Your task to perform on an android device: Search for sushi restaurants on Maps Image 0: 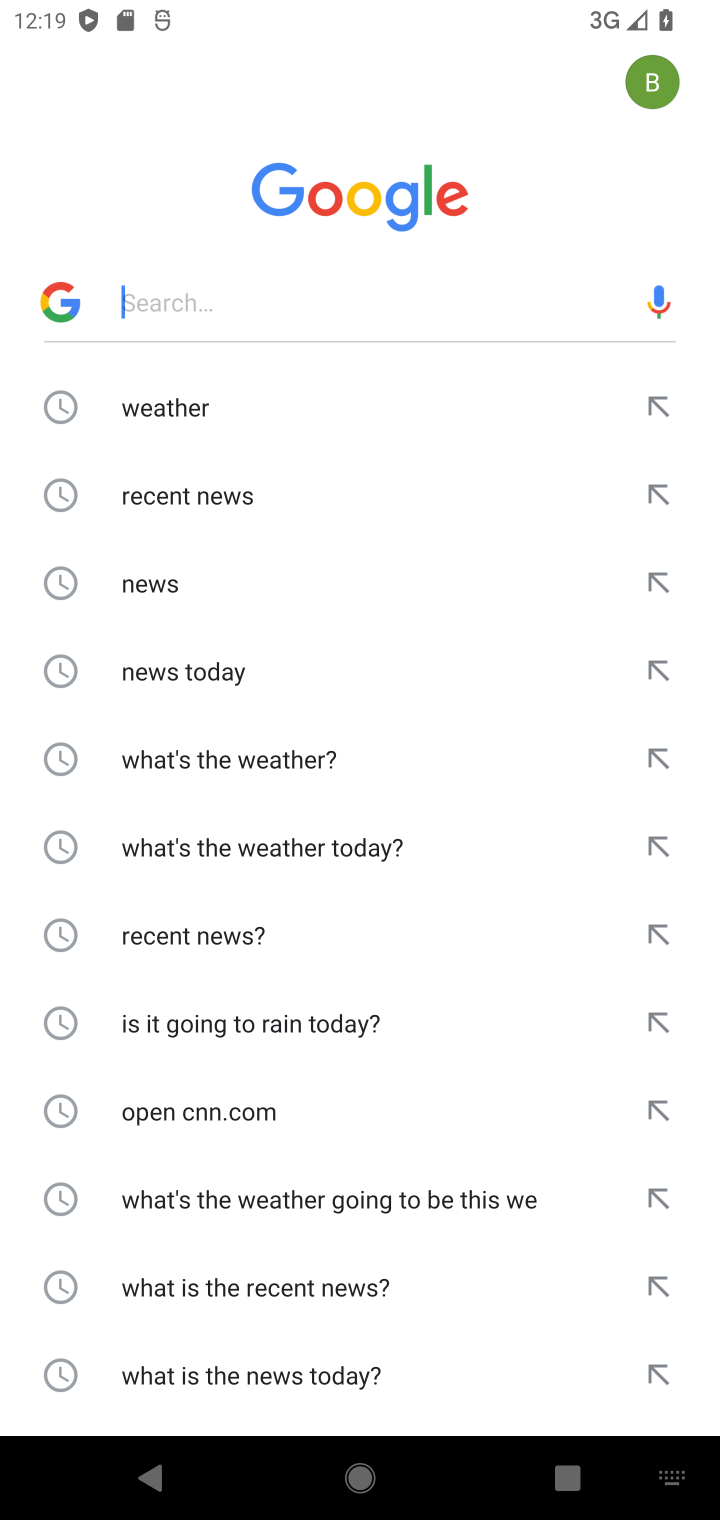
Step 0: press home button
Your task to perform on an android device: Search for sushi restaurants on Maps Image 1: 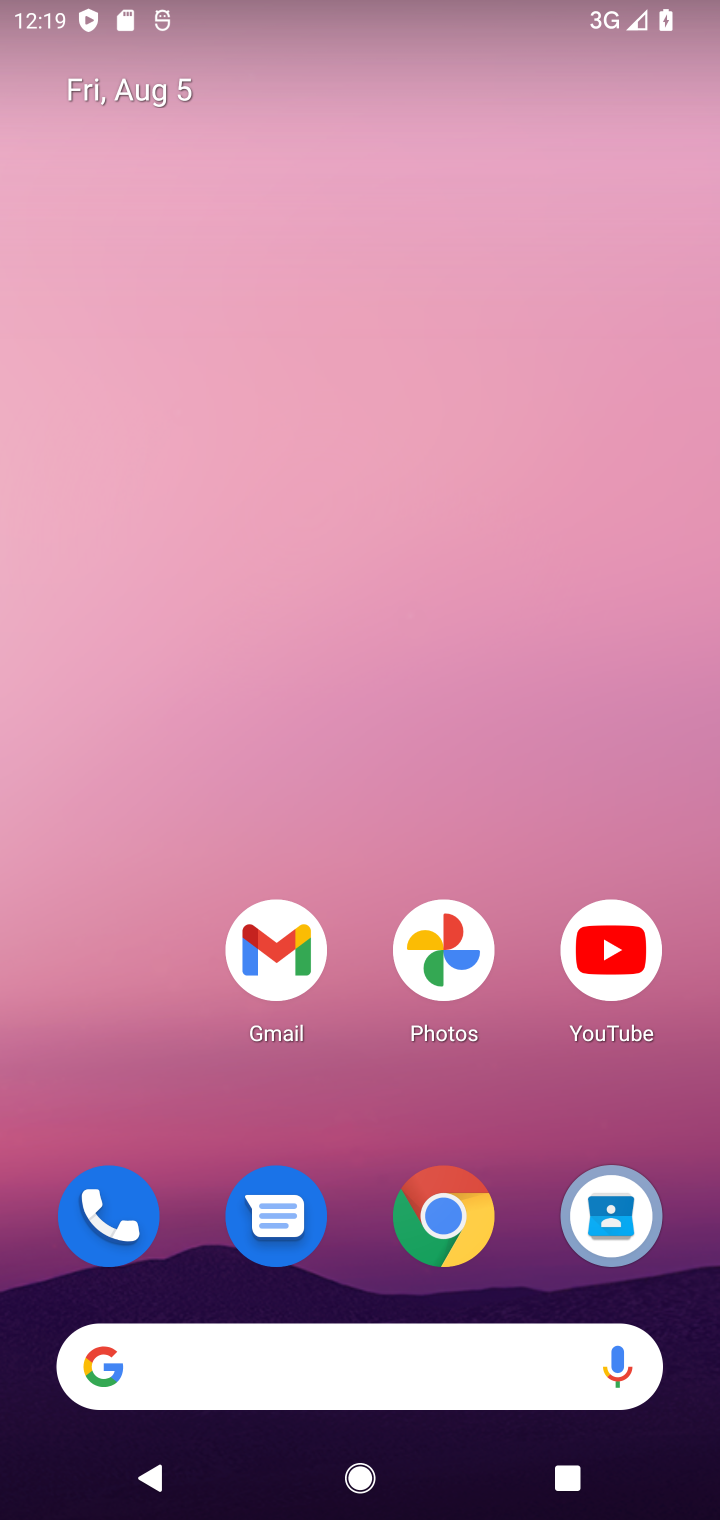
Step 1: drag from (423, 1363) to (534, 48)
Your task to perform on an android device: Search for sushi restaurants on Maps Image 2: 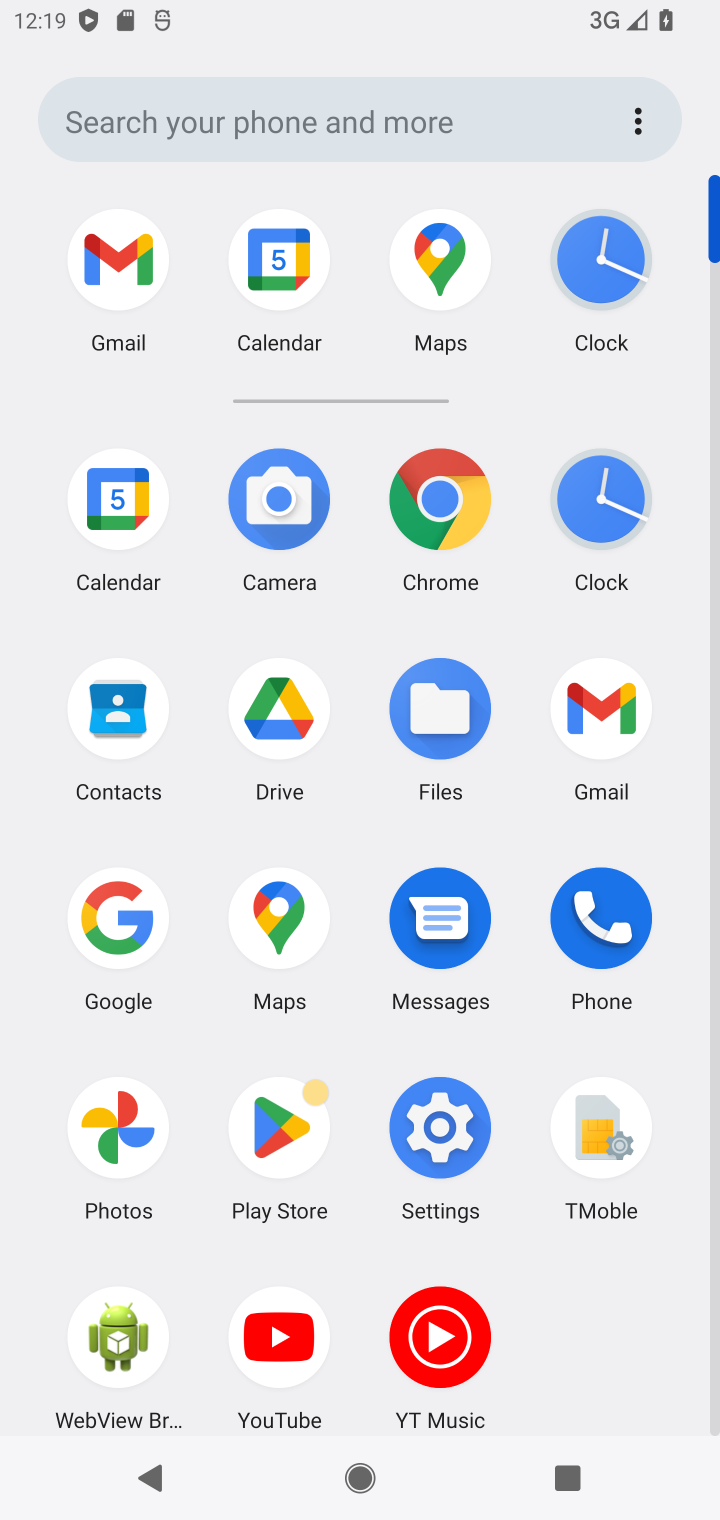
Step 2: click (295, 894)
Your task to perform on an android device: Search for sushi restaurants on Maps Image 3: 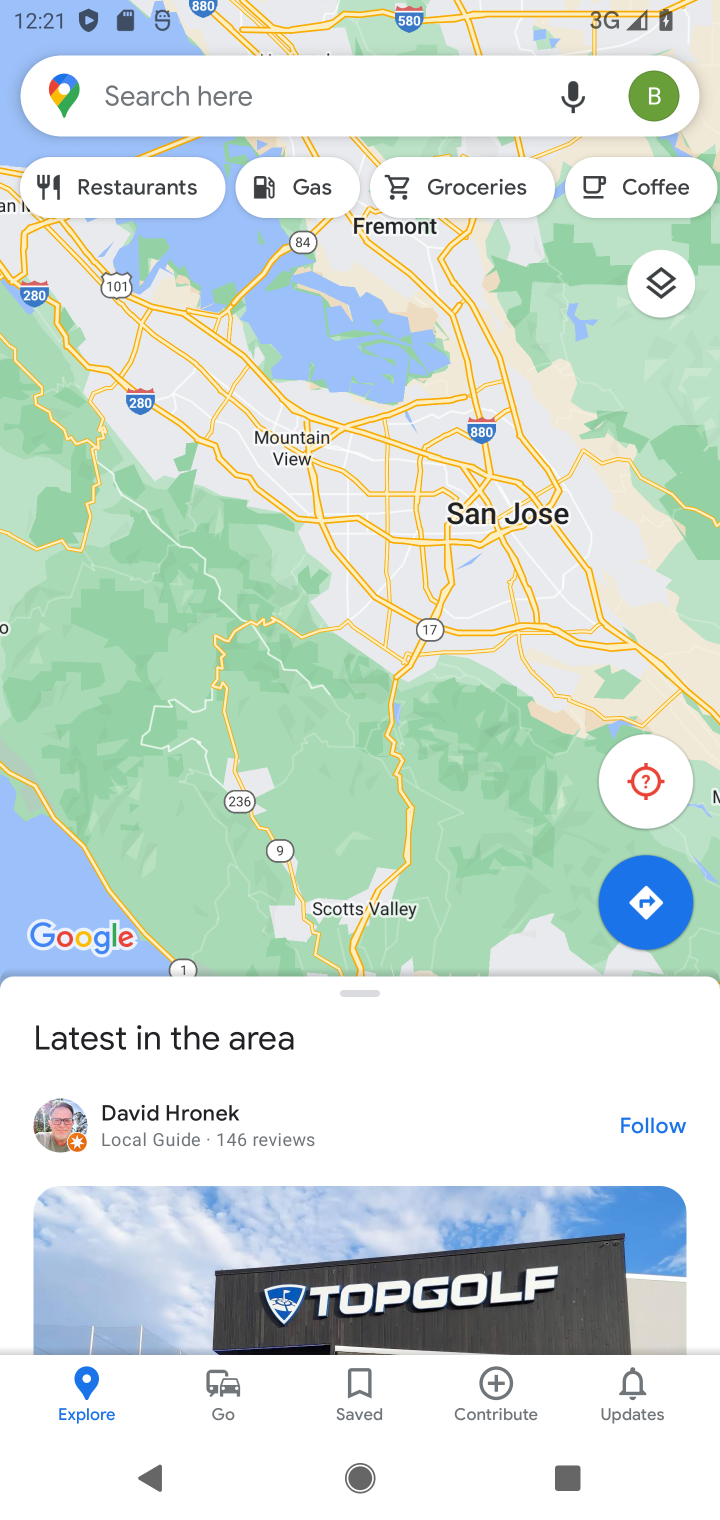
Step 3: click (280, 111)
Your task to perform on an android device: Search for sushi restaurants on Maps Image 4: 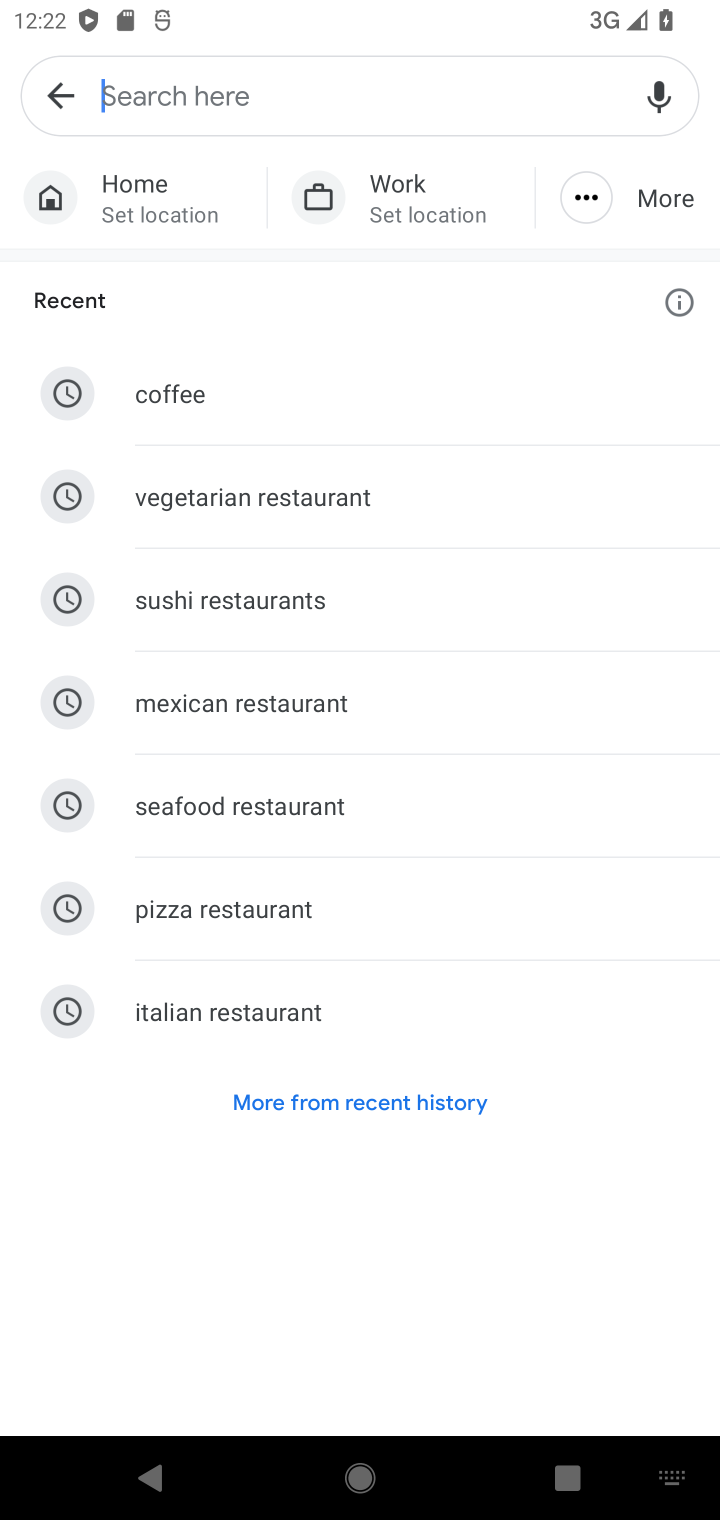
Step 4: type "sushi restaurant"
Your task to perform on an android device: Search for sushi restaurants on Maps Image 5: 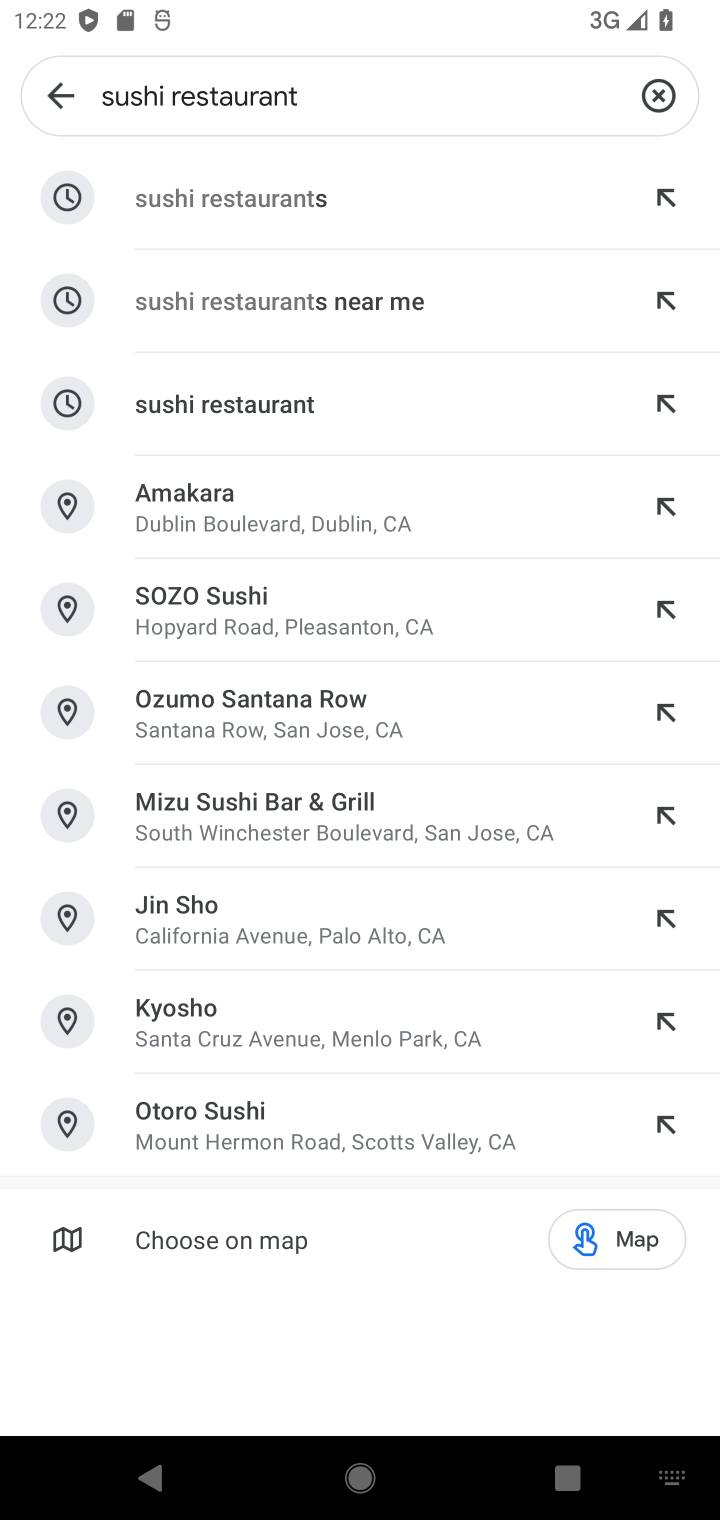
Step 5: click (310, 188)
Your task to perform on an android device: Search for sushi restaurants on Maps Image 6: 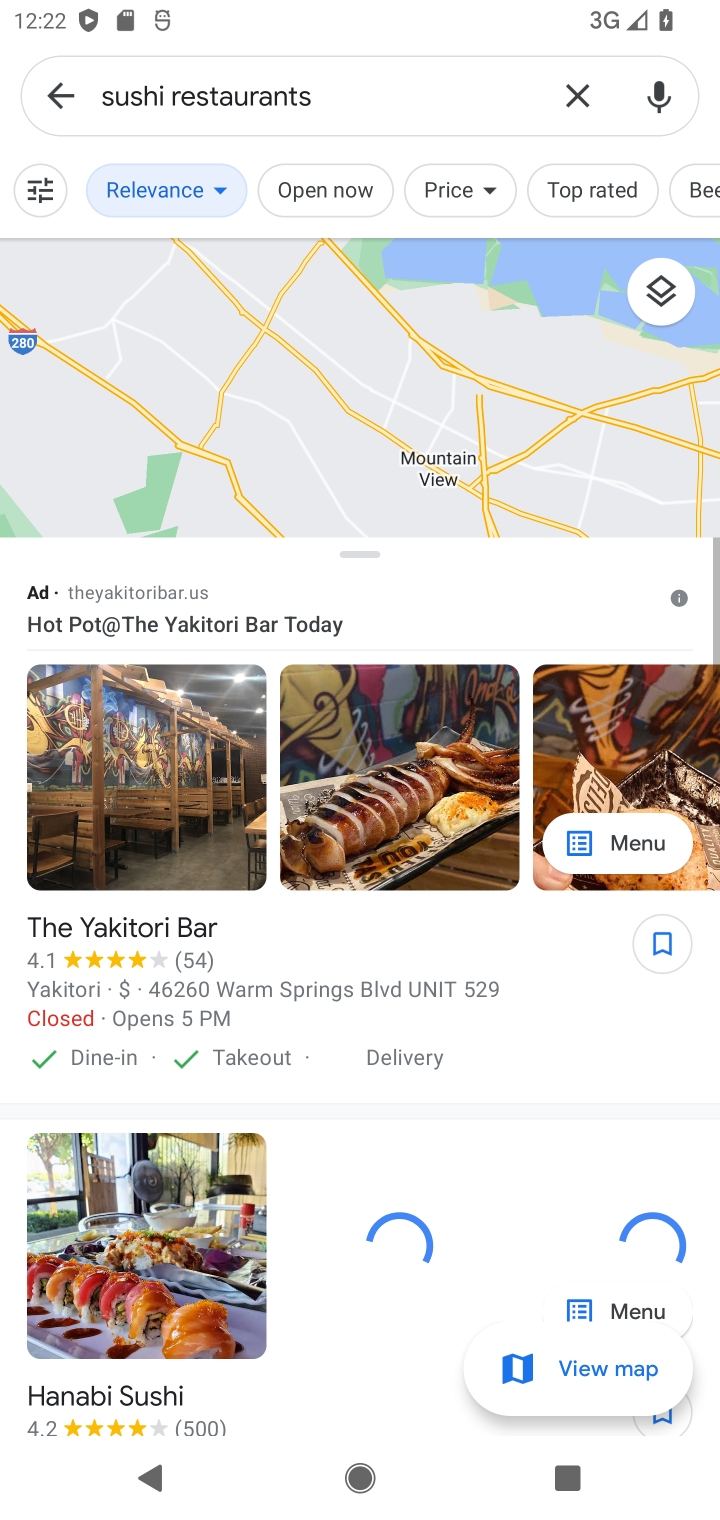
Step 6: task complete